Your task to perform on an android device: Go to Maps Image 0: 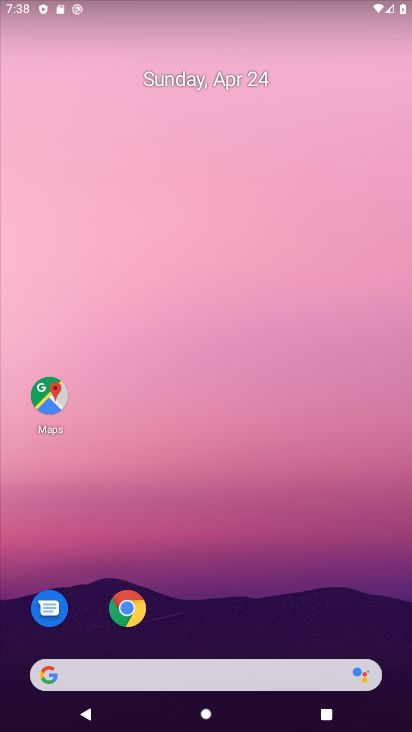
Step 0: click (49, 396)
Your task to perform on an android device: Go to Maps Image 1: 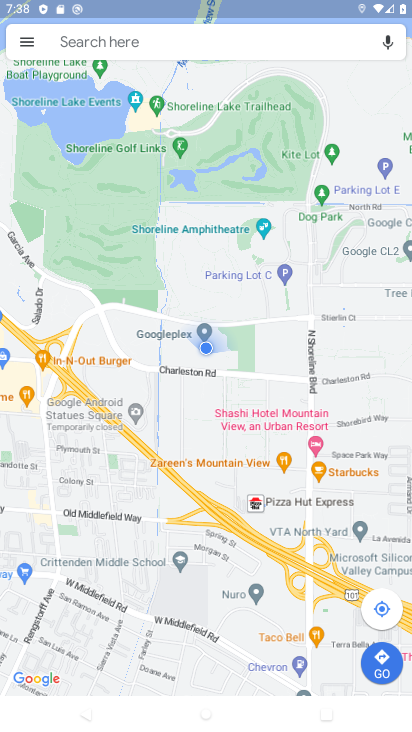
Step 1: task complete